Your task to perform on an android device: Open eBay Image 0: 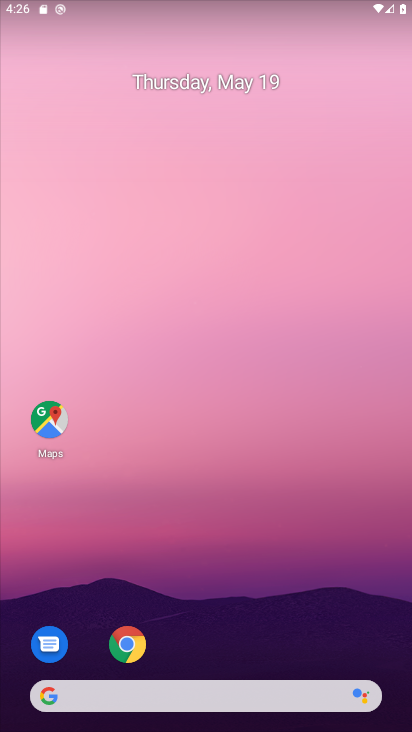
Step 0: press home button
Your task to perform on an android device: Open eBay Image 1: 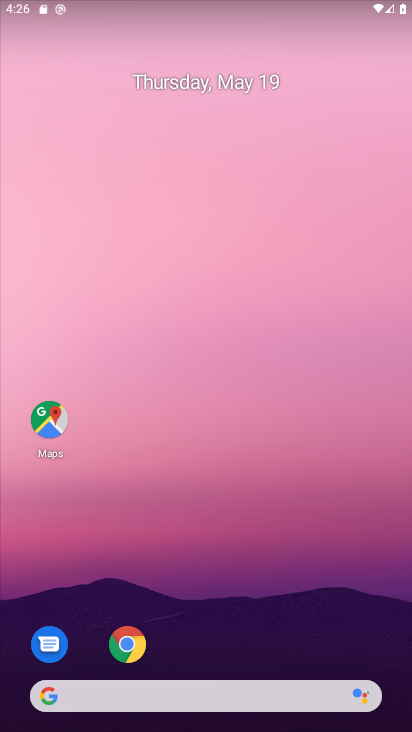
Step 1: click (138, 661)
Your task to perform on an android device: Open eBay Image 2: 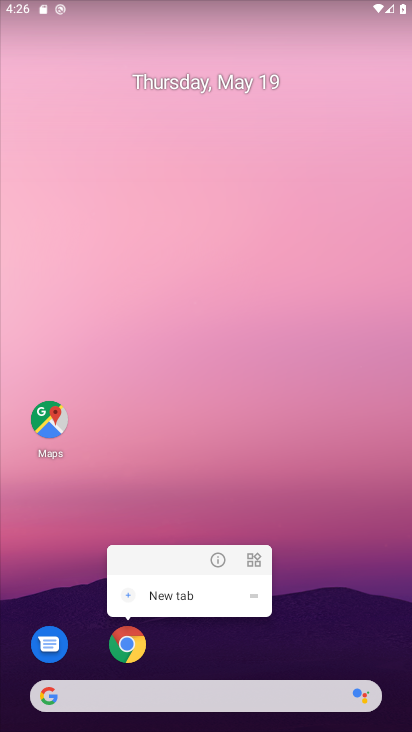
Step 2: click (141, 644)
Your task to perform on an android device: Open eBay Image 3: 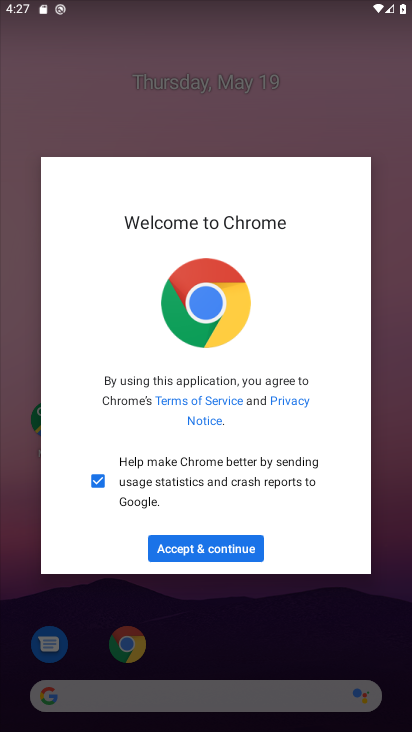
Step 3: click (190, 551)
Your task to perform on an android device: Open eBay Image 4: 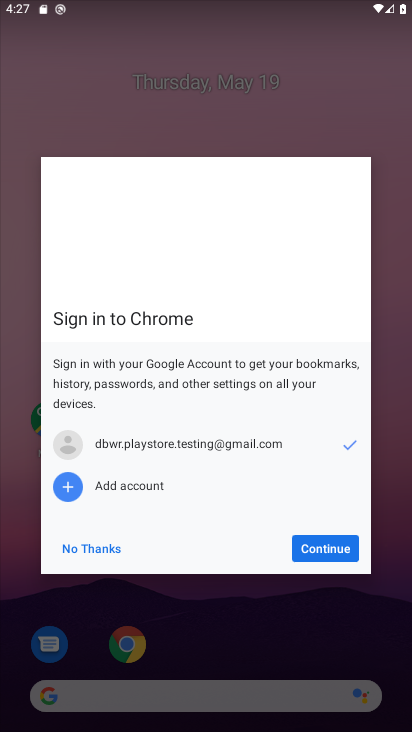
Step 4: click (324, 555)
Your task to perform on an android device: Open eBay Image 5: 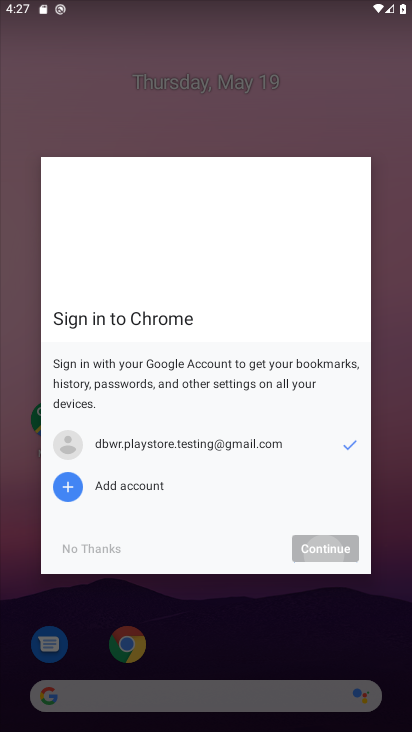
Step 5: click (324, 555)
Your task to perform on an android device: Open eBay Image 6: 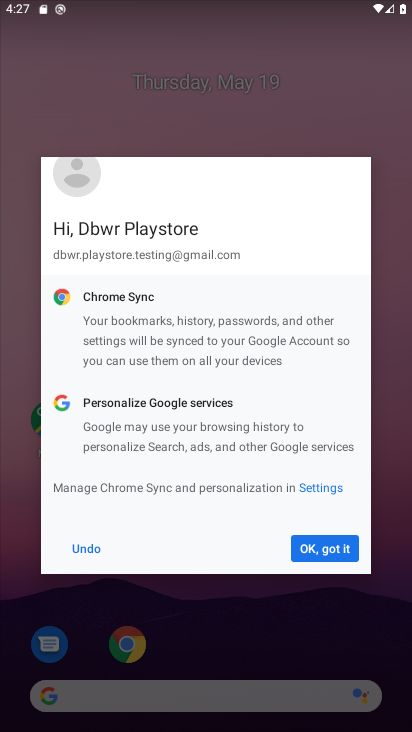
Step 6: click (324, 555)
Your task to perform on an android device: Open eBay Image 7: 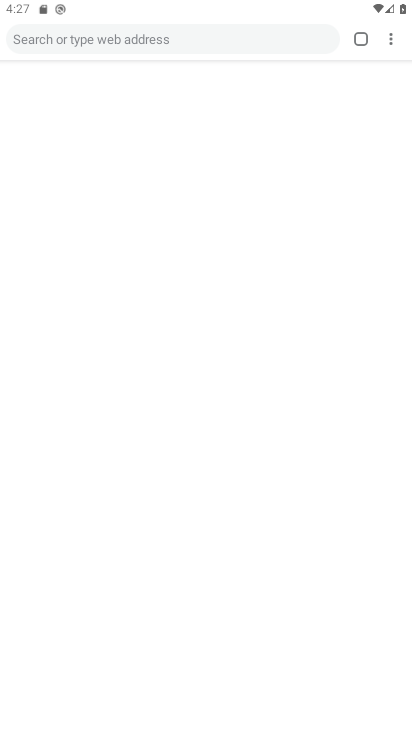
Step 7: click (324, 555)
Your task to perform on an android device: Open eBay Image 8: 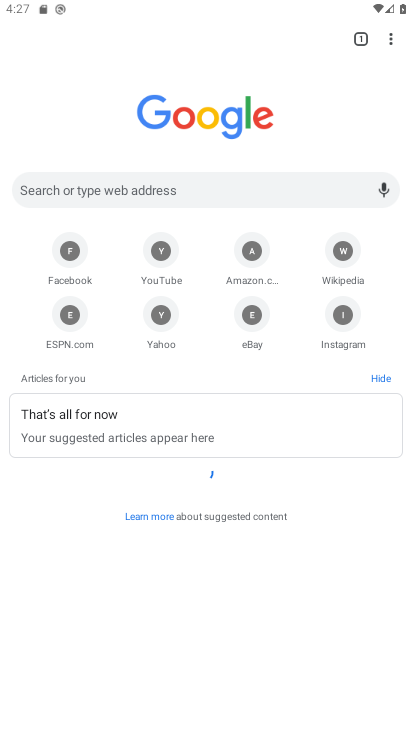
Step 8: drag from (392, 39) to (265, 324)
Your task to perform on an android device: Open eBay Image 9: 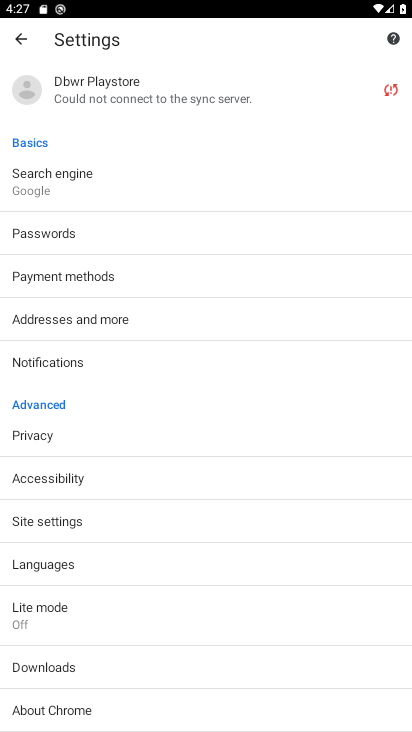
Step 9: click (20, 43)
Your task to perform on an android device: Open eBay Image 10: 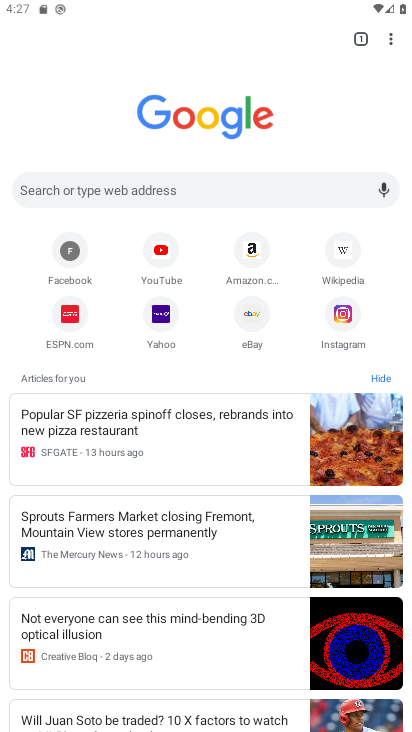
Step 10: click (115, 193)
Your task to perform on an android device: Open eBay Image 11: 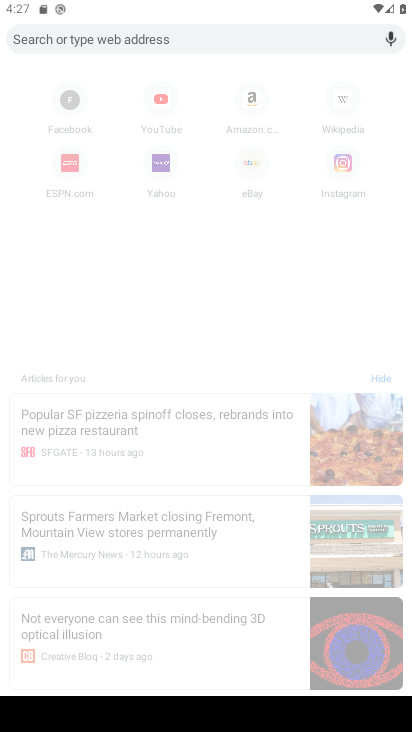
Step 11: click (262, 198)
Your task to perform on an android device: Open eBay Image 12: 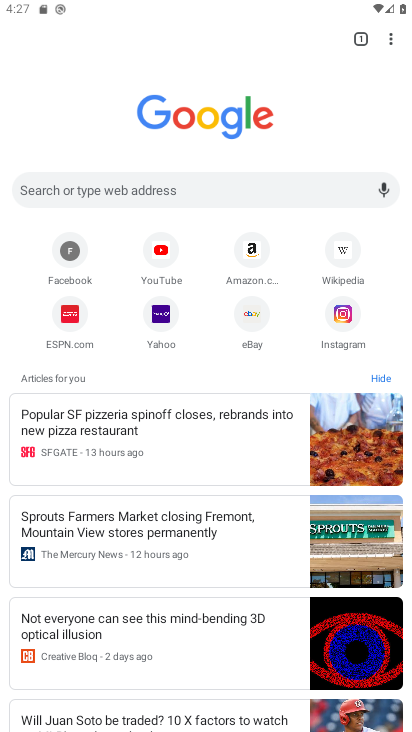
Step 12: click (251, 318)
Your task to perform on an android device: Open eBay Image 13: 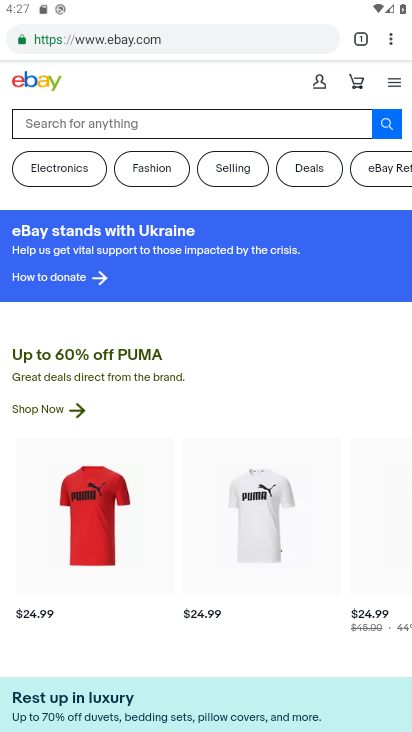
Step 13: task complete